Your task to perform on an android device: turn off translation in the chrome app Image 0: 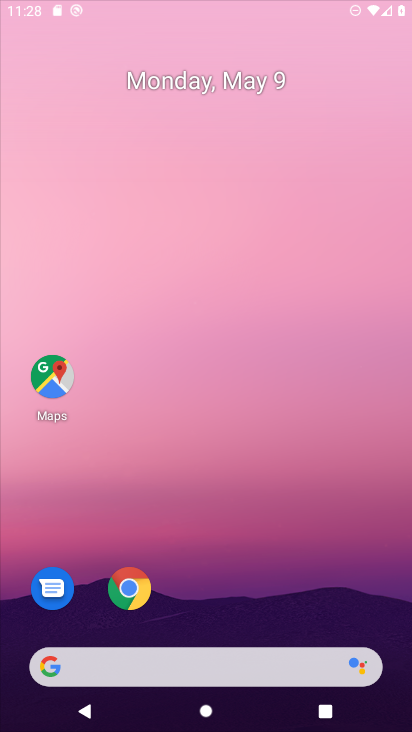
Step 0: drag from (330, 574) to (299, 96)
Your task to perform on an android device: turn off translation in the chrome app Image 1: 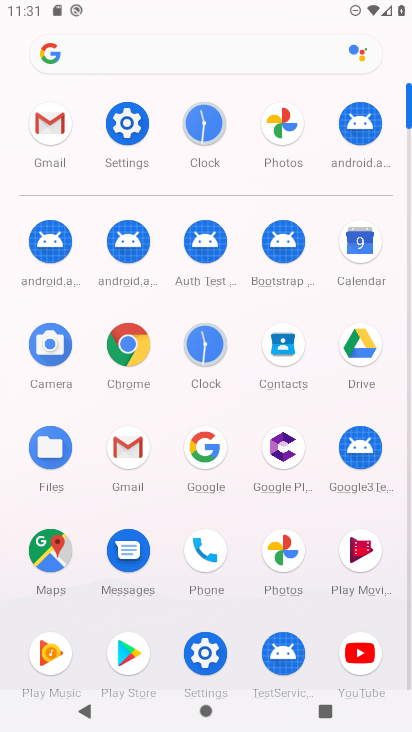
Step 1: click (132, 373)
Your task to perform on an android device: turn off translation in the chrome app Image 2: 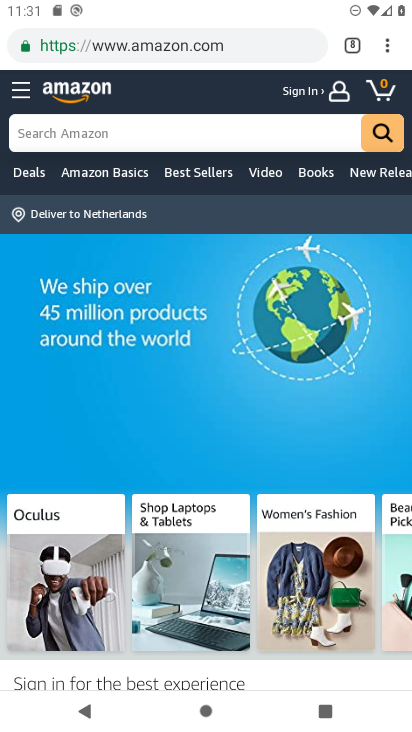
Step 2: click (383, 51)
Your task to perform on an android device: turn off translation in the chrome app Image 3: 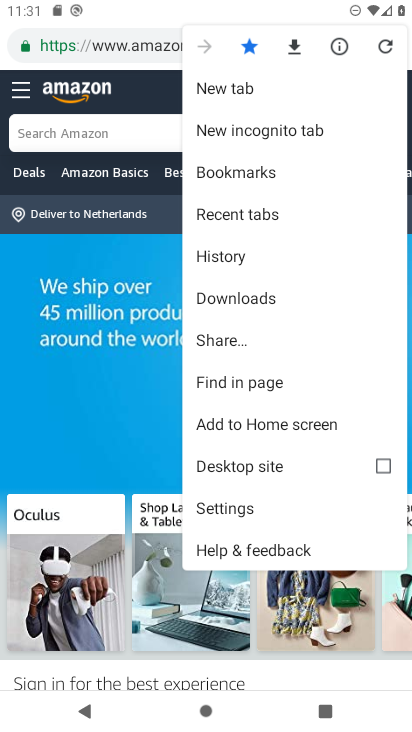
Step 3: click (261, 503)
Your task to perform on an android device: turn off translation in the chrome app Image 4: 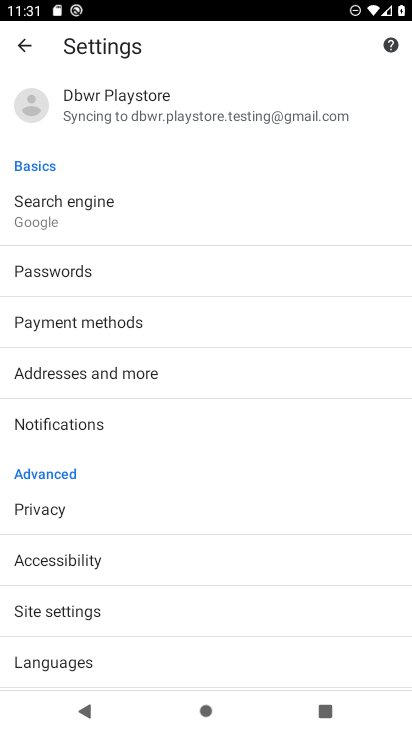
Step 4: click (111, 604)
Your task to perform on an android device: turn off translation in the chrome app Image 5: 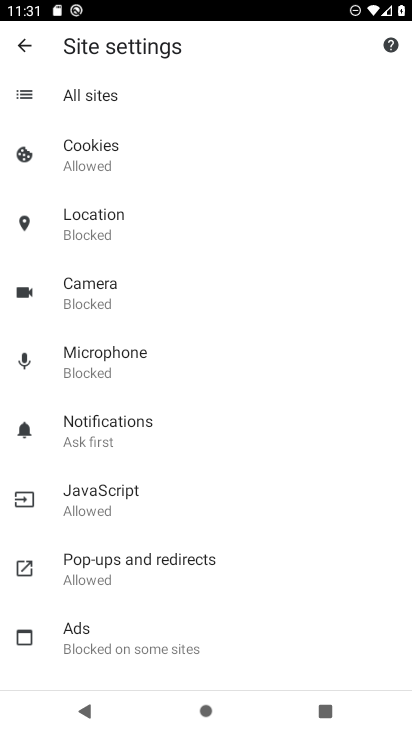
Step 5: task complete